Your task to perform on an android device: turn on notifications settings in the gmail app Image 0: 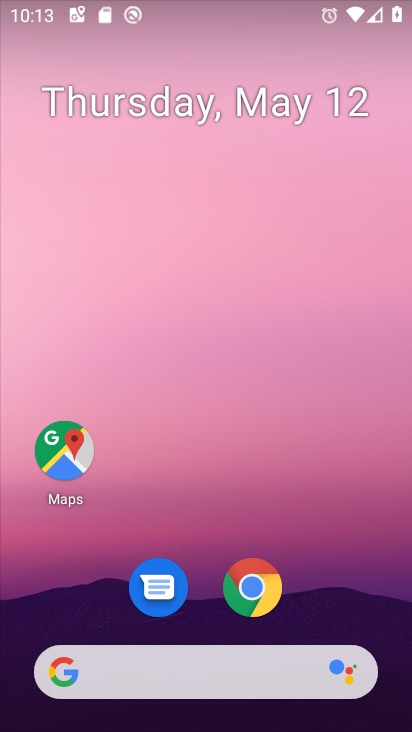
Step 0: drag from (319, 601) to (234, 58)
Your task to perform on an android device: turn on notifications settings in the gmail app Image 1: 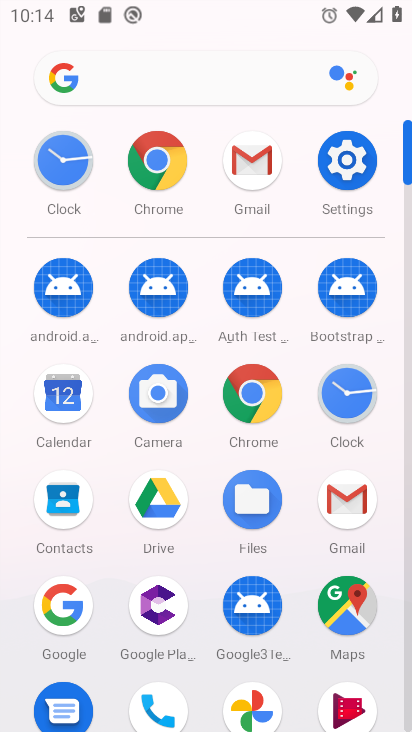
Step 1: click (341, 512)
Your task to perform on an android device: turn on notifications settings in the gmail app Image 2: 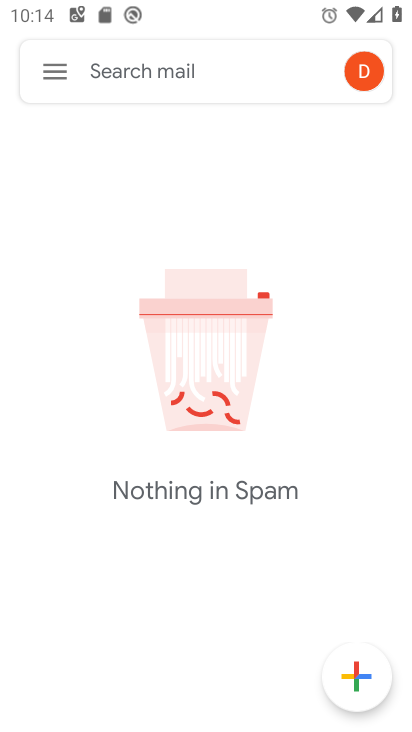
Step 2: click (59, 72)
Your task to perform on an android device: turn on notifications settings in the gmail app Image 3: 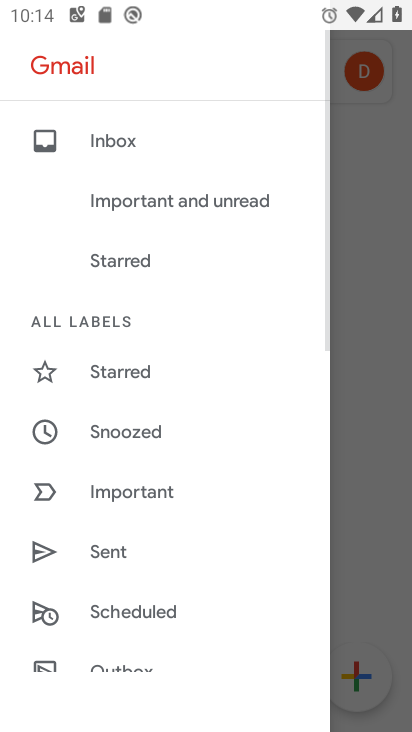
Step 3: drag from (190, 630) to (248, 144)
Your task to perform on an android device: turn on notifications settings in the gmail app Image 4: 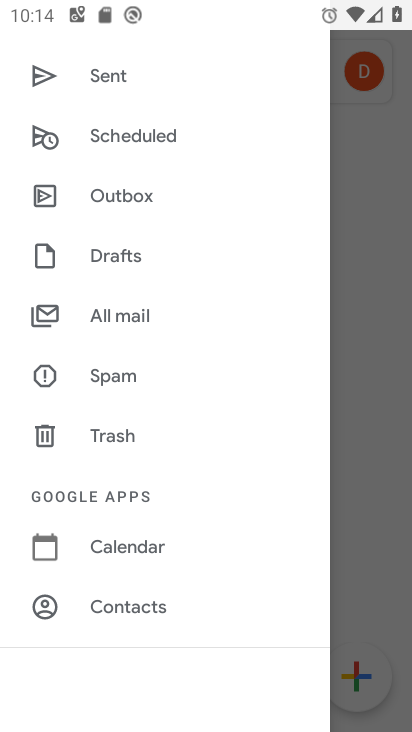
Step 4: drag from (121, 571) to (172, 157)
Your task to perform on an android device: turn on notifications settings in the gmail app Image 5: 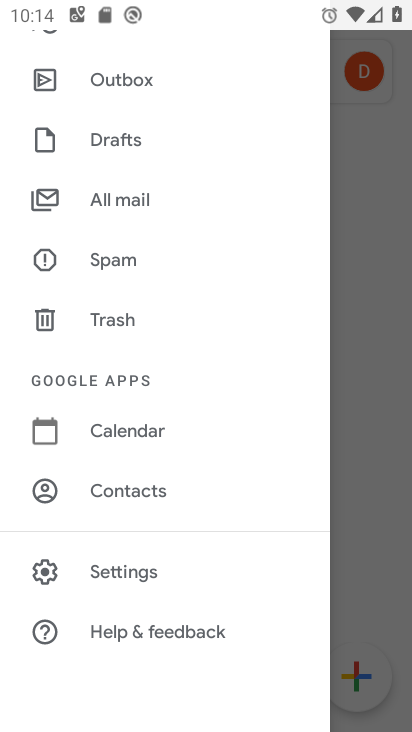
Step 5: click (136, 588)
Your task to perform on an android device: turn on notifications settings in the gmail app Image 6: 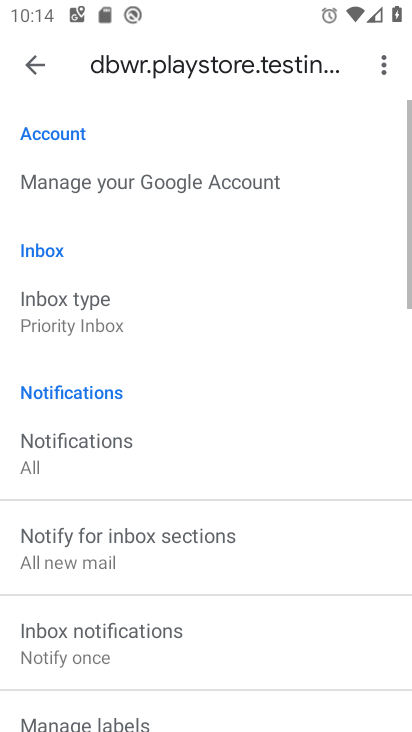
Step 6: click (121, 446)
Your task to perform on an android device: turn on notifications settings in the gmail app Image 7: 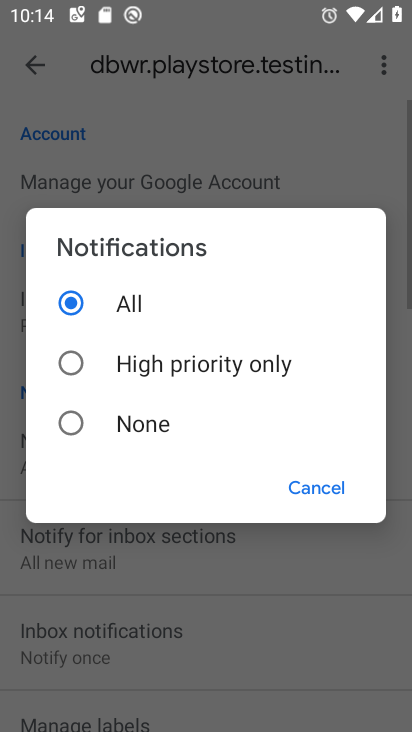
Step 7: task complete